Your task to perform on an android device: What's on my calendar today? Image 0: 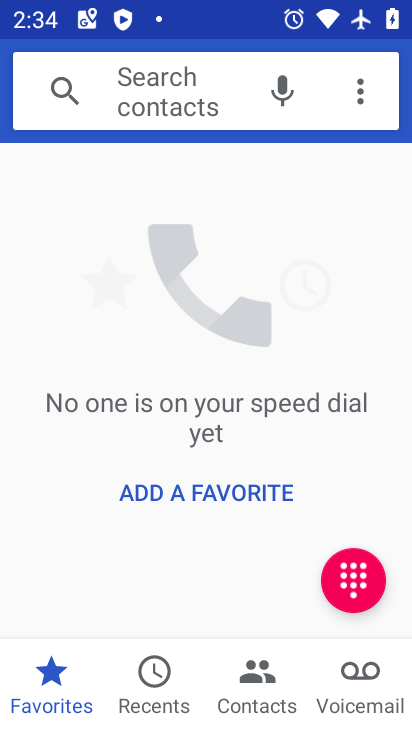
Step 0: press home button
Your task to perform on an android device: What's on my calendar today? Image 1: 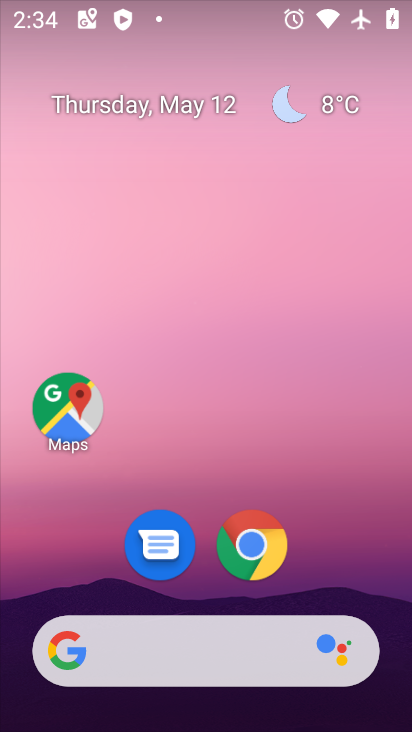
Step 1: drag from (385, 609) to (203, 67)
Your task to perform on an android device: What's on my calendar today? Image 2: 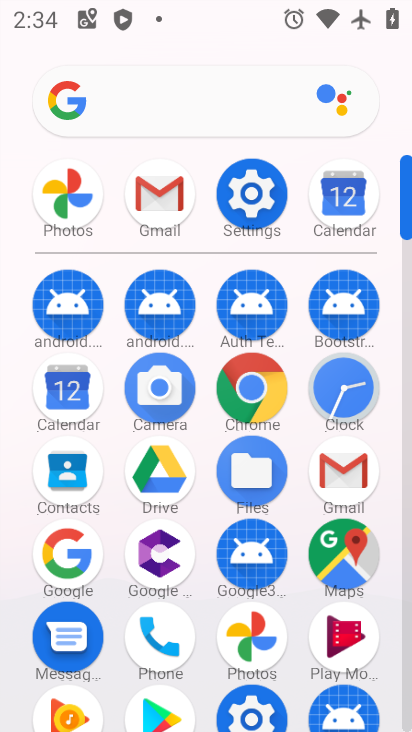
Step 2: click (406, 714)
Your task to perform on an android device: What's on my calendar today? Image 3: 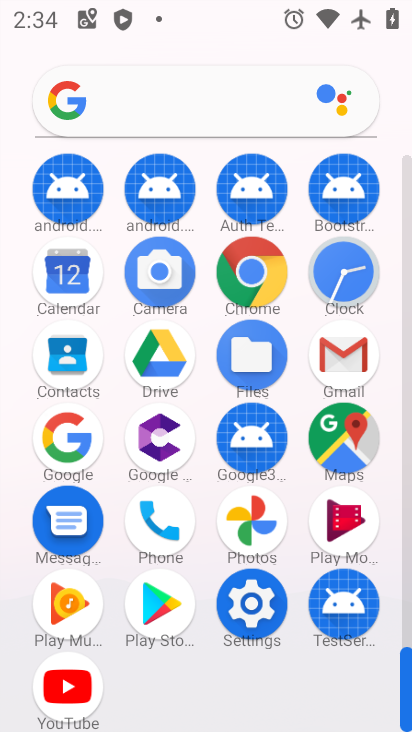
Step 3: click (63, 274)
Your task to perform on an android device: What's on my calendar today? Image 4: 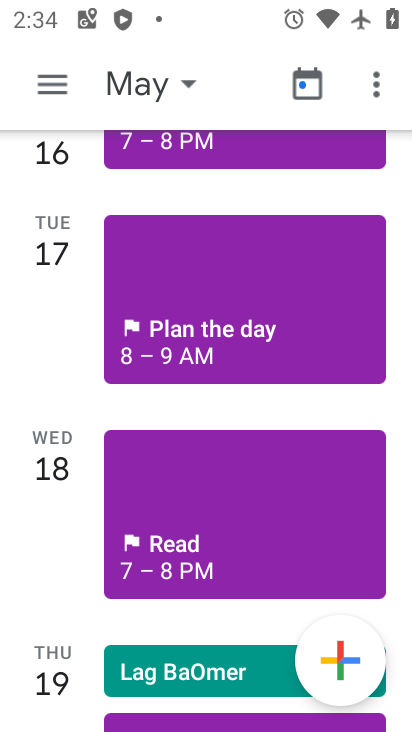
Step 4: click (49, 80)
Your task to perform on an android device: What's on my calendar today? Image 5: 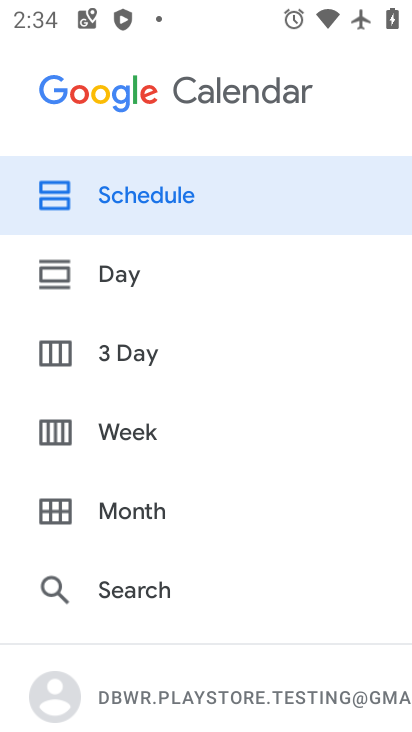
Step 5: click (117, 268)
Your task to perform on an android device: What's on my calendar today? Image 6: 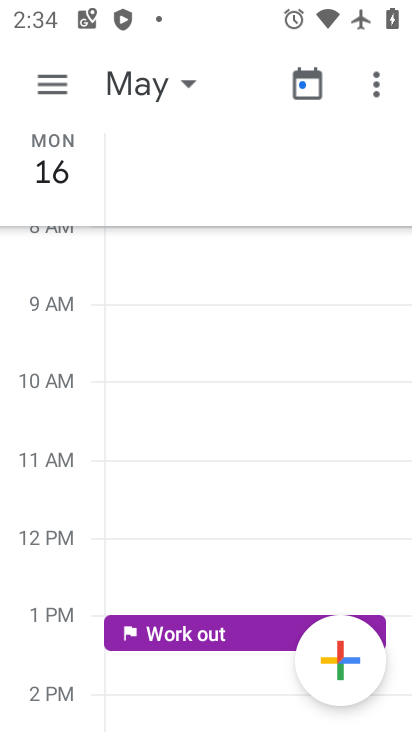
Step 6: click (189, 85)
Your task to perform on an android device: What's on my calendar today? Image 7: 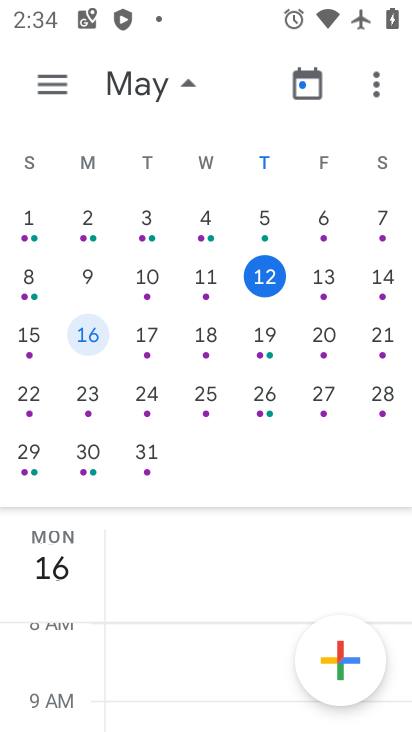
Step 7: click (272, 277)
Your task to perform on an android device: What's on my calendar today? Image 8: 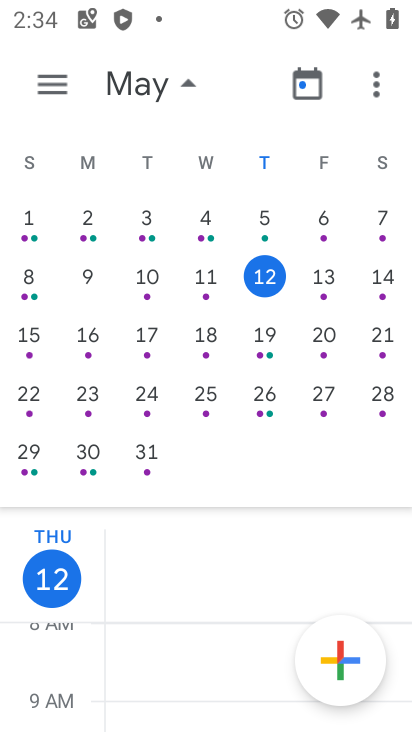
Step 8: task complete